Your task to perform on an android device: Open notification settings Image 0: 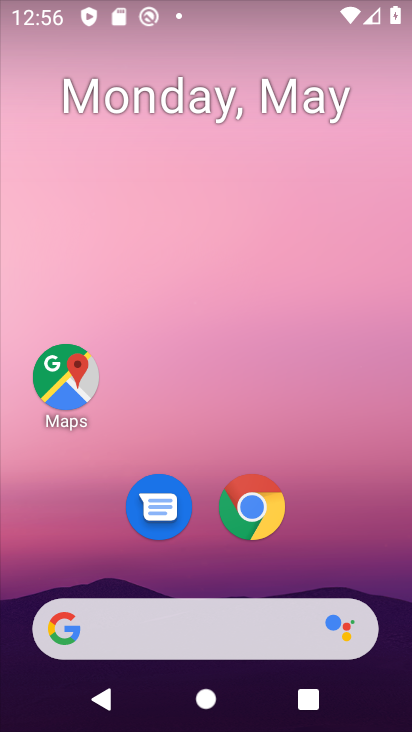
Step 0: drag from (315, 521) to (354, 47)
Your task to perform on an android device: Open notification settings Image 1: 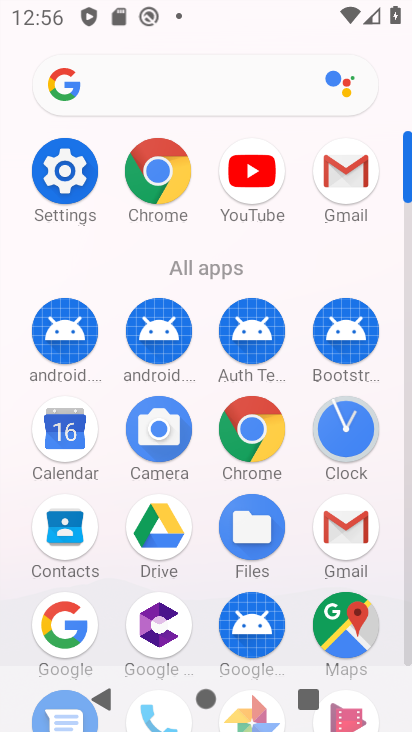
Step 1: click (62, 168)
Your task to perform on an android device: Open notification settings Image 2: 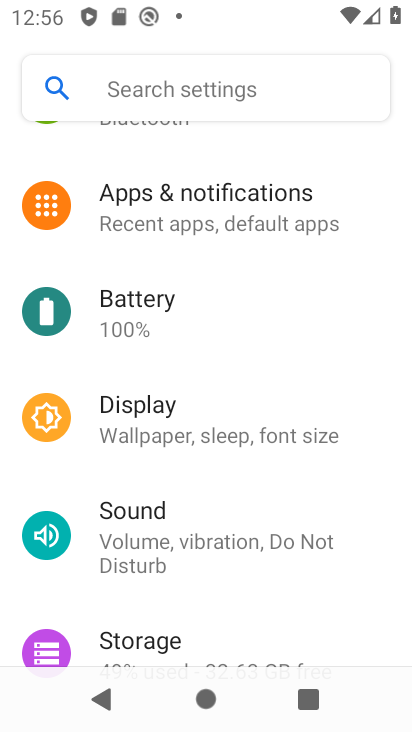
Step 2: click (186, 212)
Your task to perform on an android device: Open notification settings Image 3: 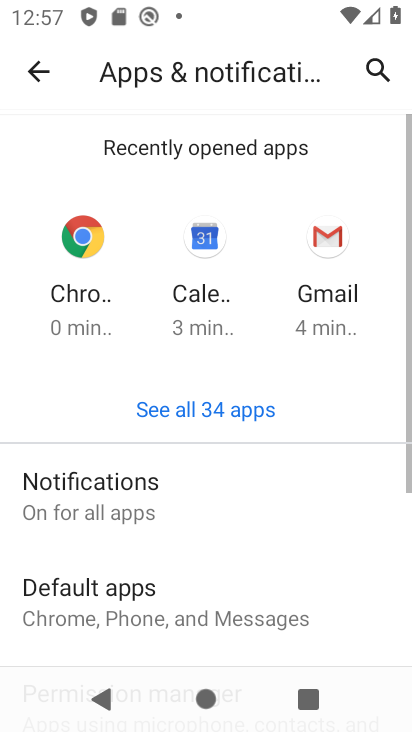
Step 3: drag from (271, 564) to (284, 224)
Your task to perform on an android device: Open notification settings Image 4: 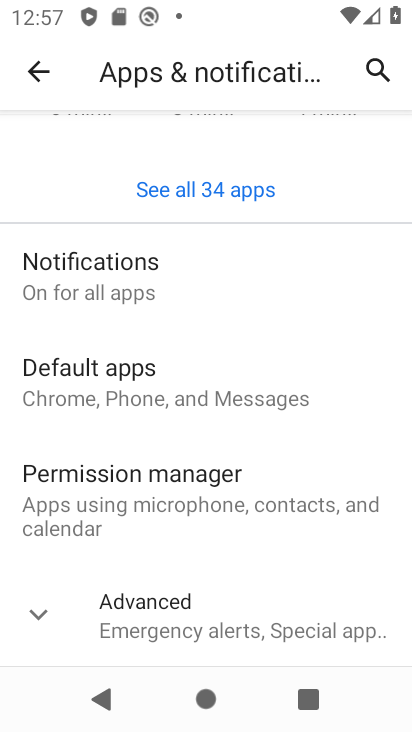
Step 4: click (174, 285)
Your task to perform on an android device: Open notification settings Image 5: 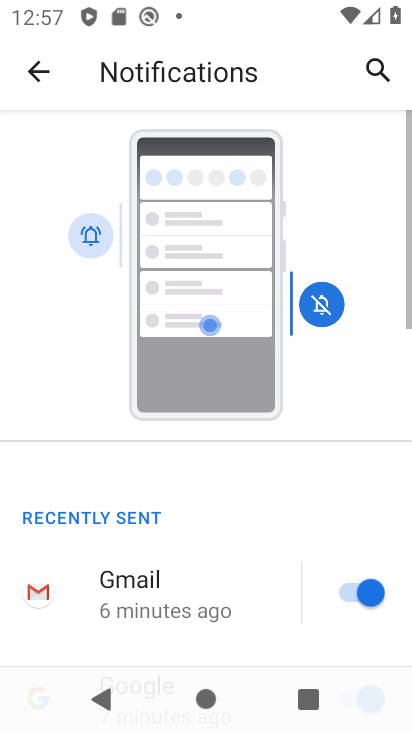
Step 5: task complete